Your task to perform on an android device: open app "Roku - Official Remote Control" Image 0: 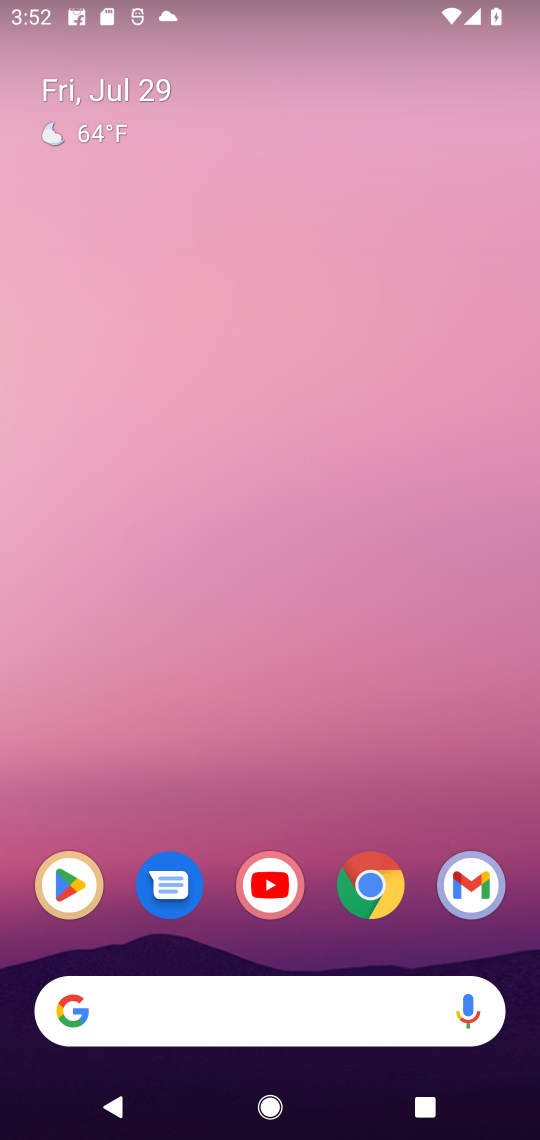
Step 0: click (80, 899)
Your task to perform on an android device: open app "Roku - Official Remote Control" Image 1: 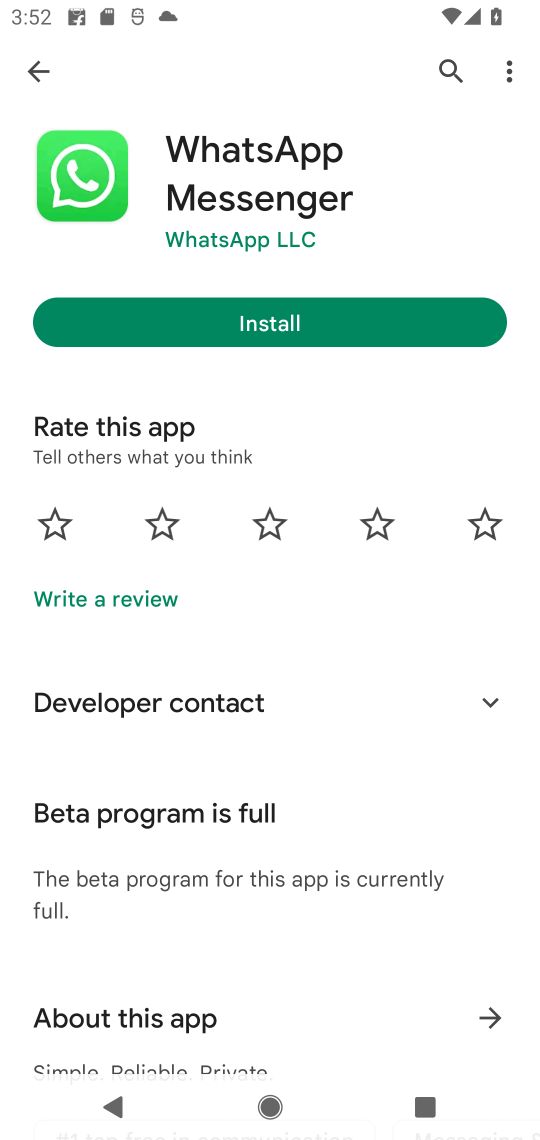
Step 1: click (453, 81)
Your task to perform on an android device: open app "Roku - Official Remote Control" Image 2: 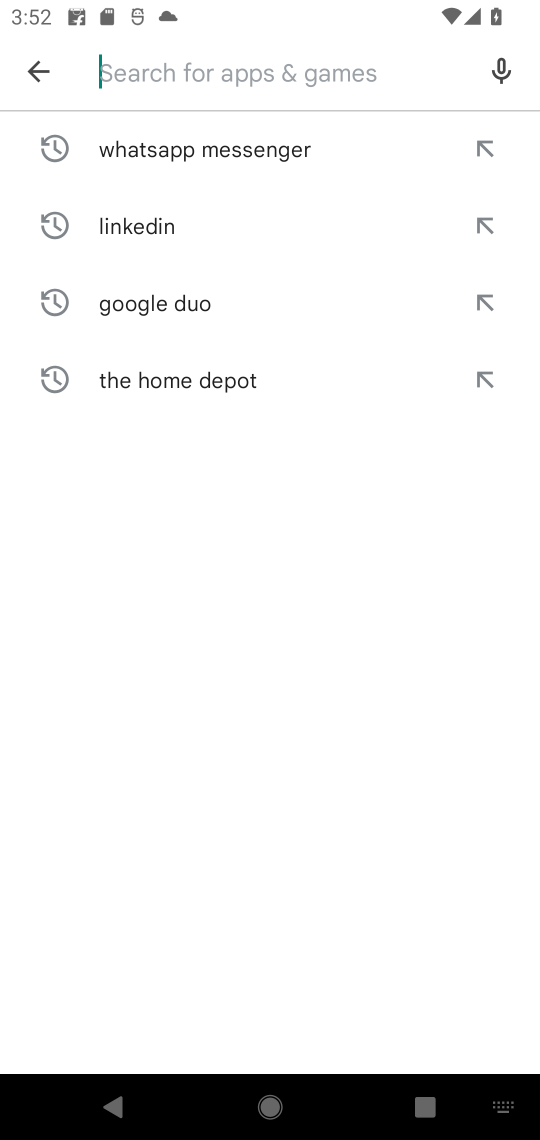
Step 2: click (453, 81)
Your task to perform on an android device: open app "Roku - Official Remote Control" Image 3: 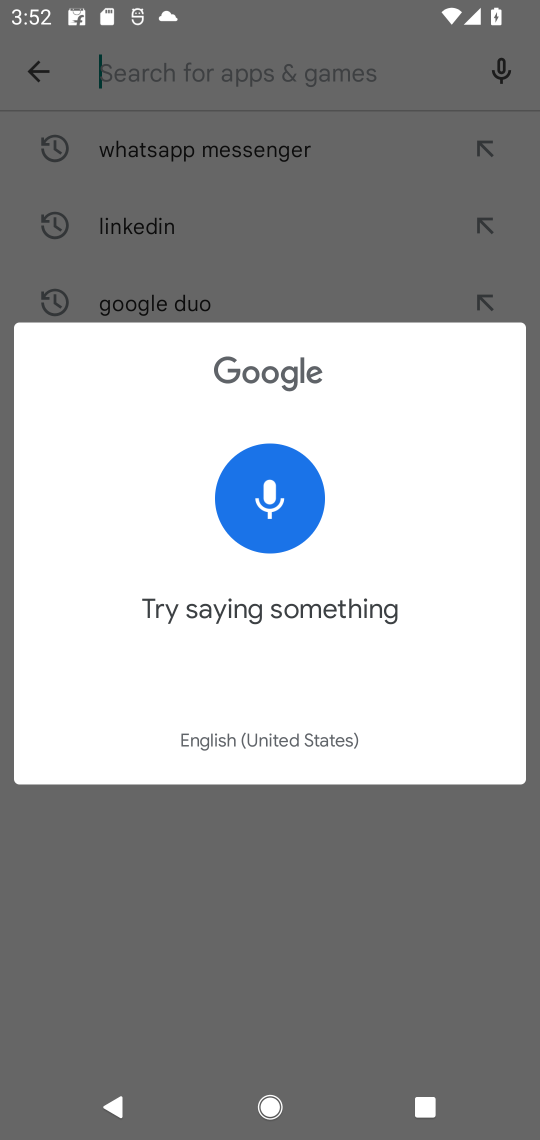
Step 3: click (323, 64)
Your task to perform on an android device: open app "Roku - Official Remote Control" Image 4: 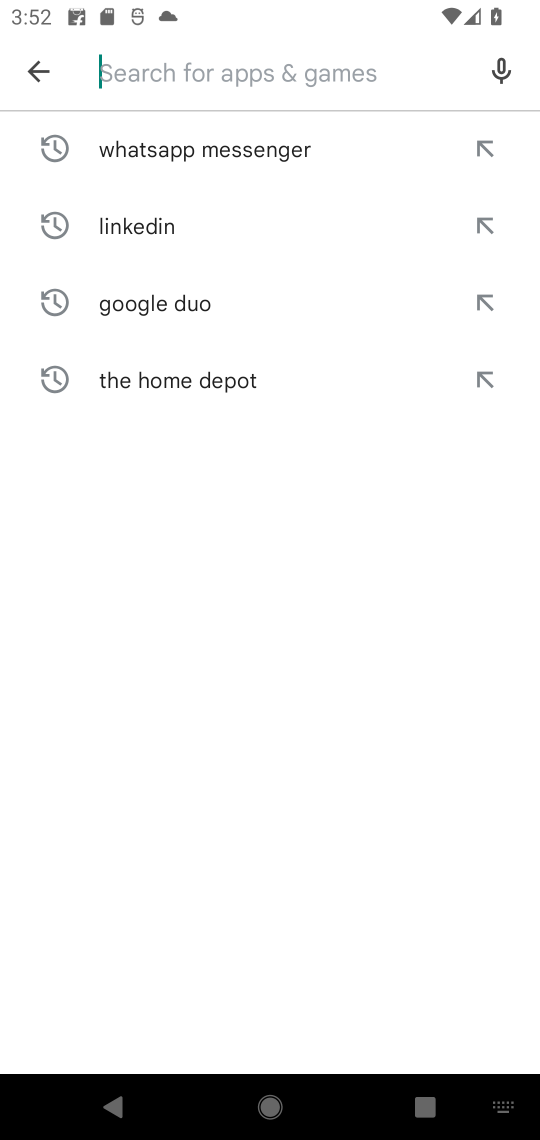
Step 4: type "Roku - Official Remote Control"
Your task to perform on an android device: open app "Roku - Official Remote Control" Image 5: 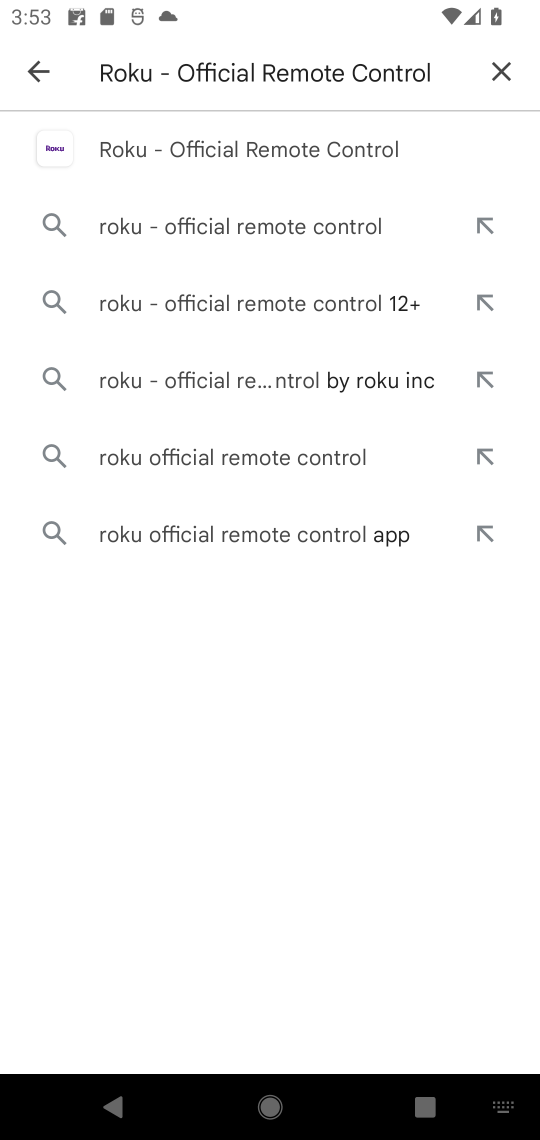
Step 5: click (155, 161)
Your task to perform on an android device: open app "Roku - Official Remote Control" Image 6: 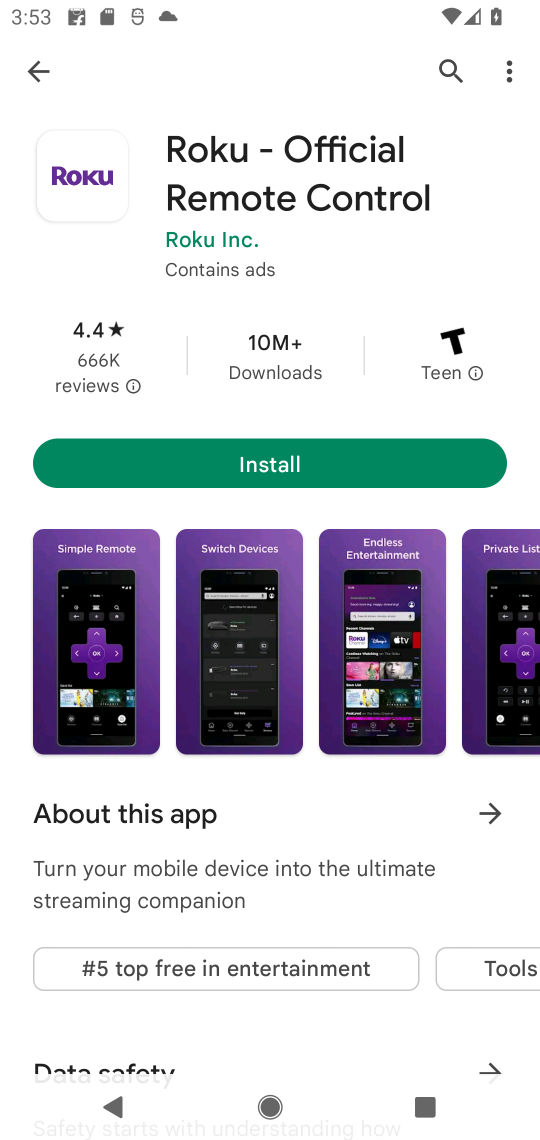
Step 6: click (356, 443)
Your task to perform on an android device: open app "Roku - Official Remote Control" Image 7: 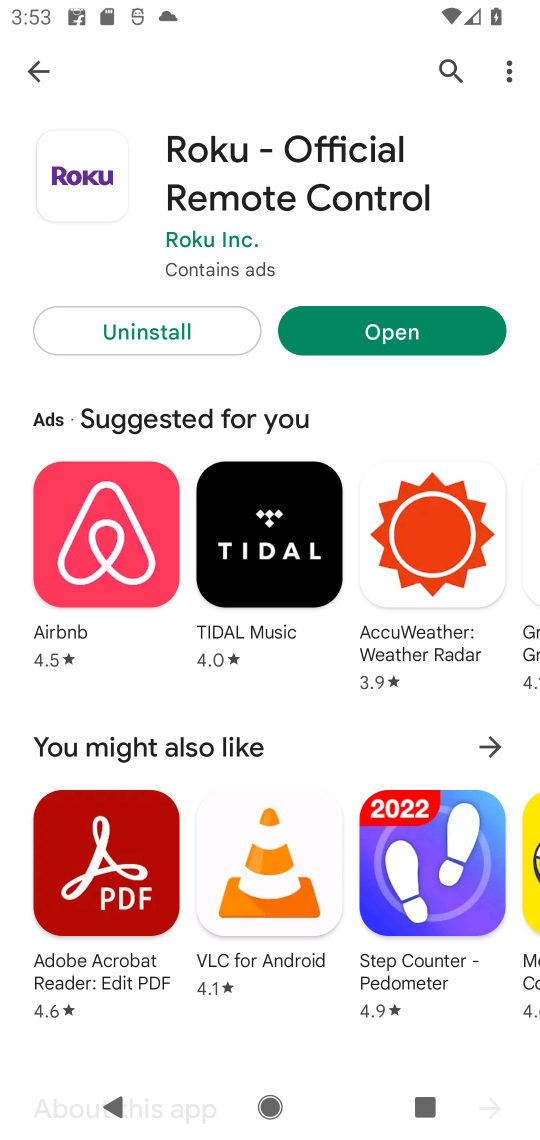
Step 7: click (436, 337)
Your task to perform on an android device: open app "Roku - Official Remote Control" Image 8: 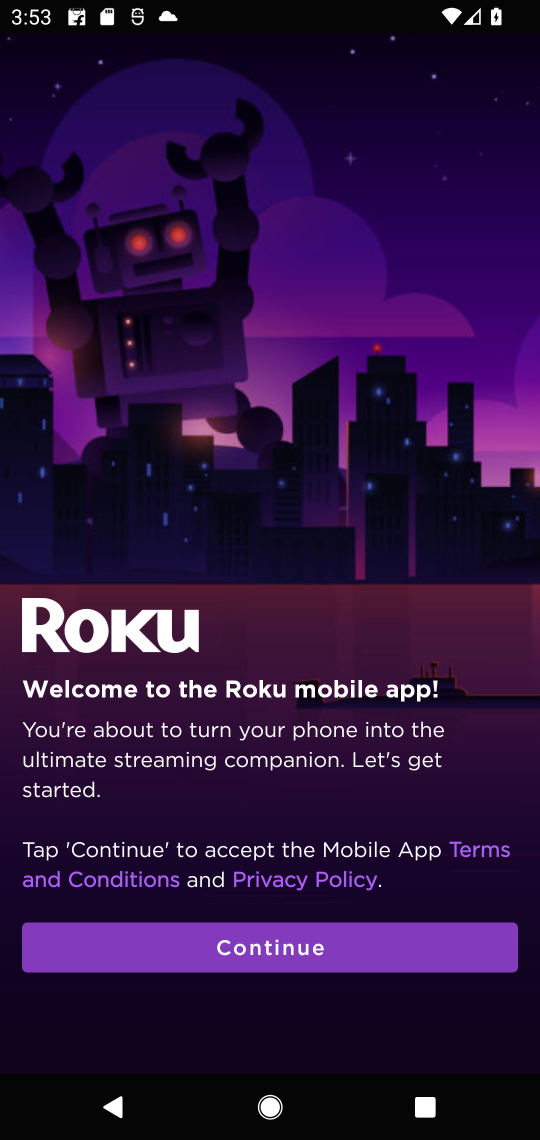
Step 8: task complete